Your task to perform on an android device: change text size in settings app Image 0: 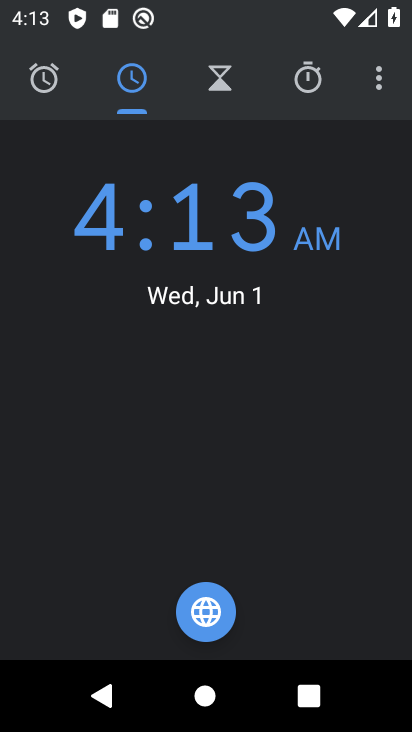
Step 0: press home button
Your task to perform on an android device: change text size in settings app Image 1: 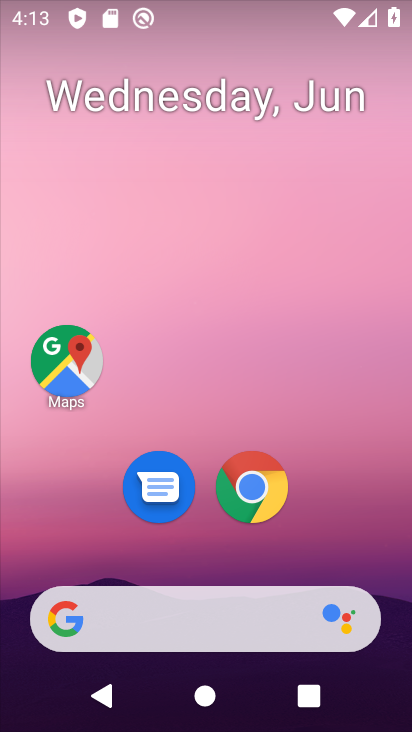
Step 1: drag from (346, 529) to (270, 166)
Your task to perform on an android device: change text size in settings app Image 2: 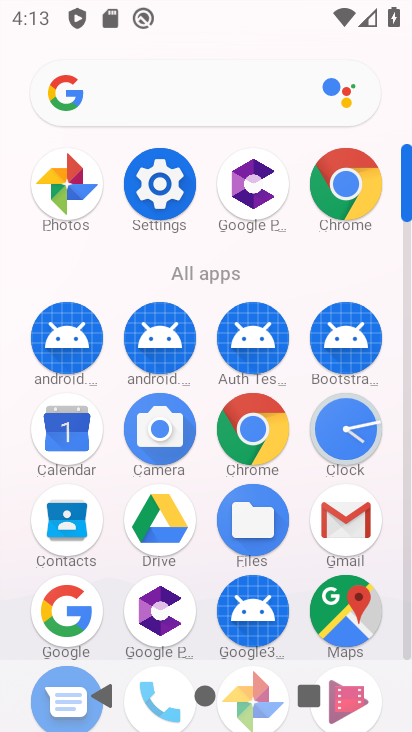
Step 2: click (158, 160)
Your task to perform on an android device: change text size in settings app Image 3: 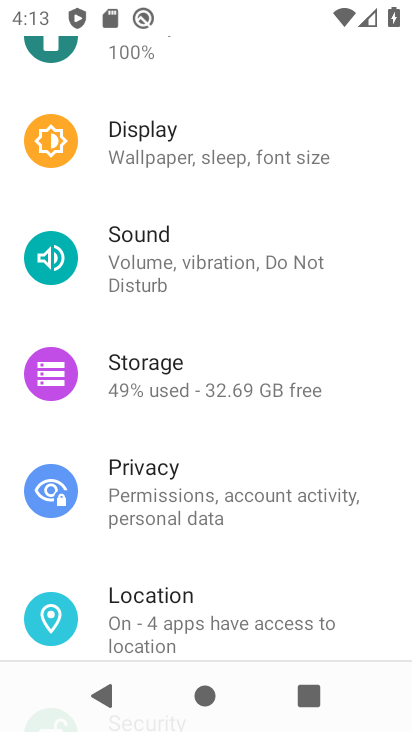
Step 3: click (204, 162)
Your task to perform on an android device: change text size in settings app Image 4: 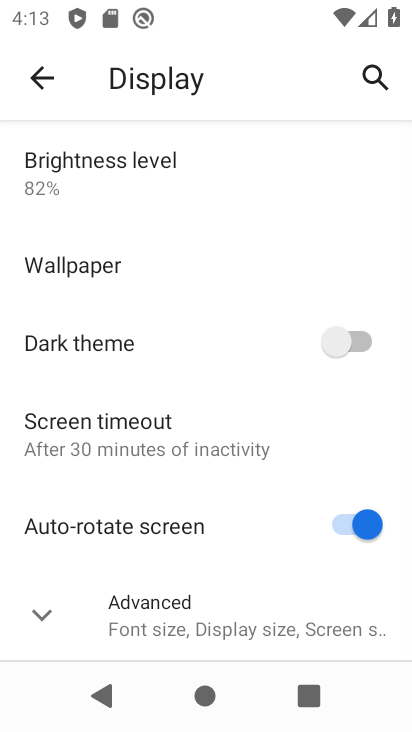
Step 4: drag from (215, 541) to (210, 245)
Your task to perform on an android device: change text size in settings app Image 5: 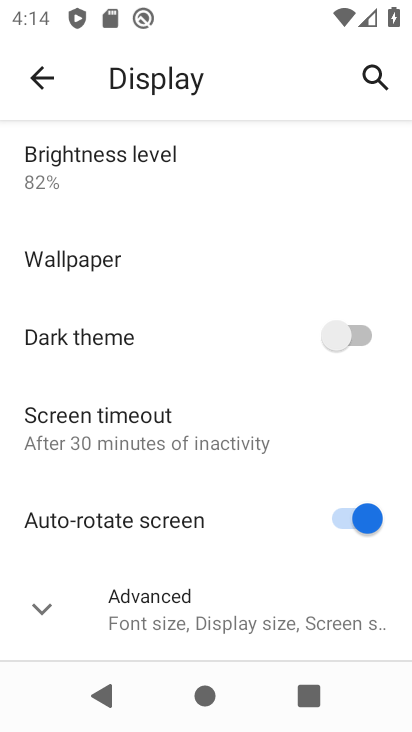
Step 5: click (137, 605)
Your task to perform on an android device: change text size in settings app Image 6: 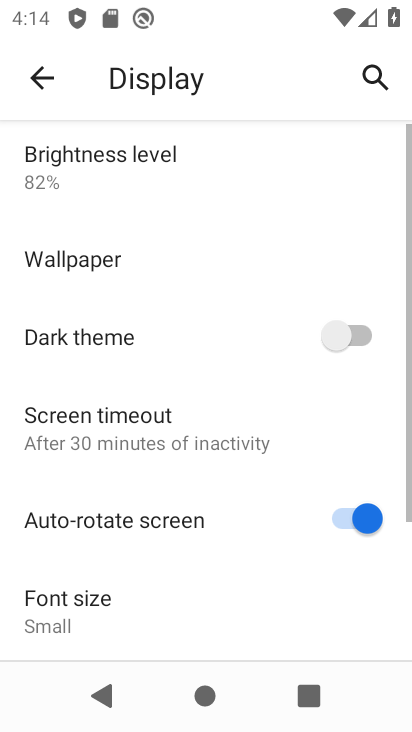
Step 6: click (76, 615)
Your task to perform on an android device: change text size in settings app Image 7: 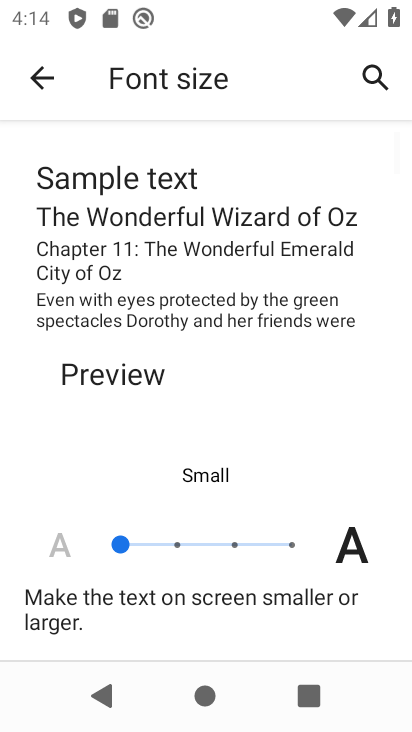
Step 7: click (148, 551)
Your task to perform on an android device: change text size in settings app Image 8: 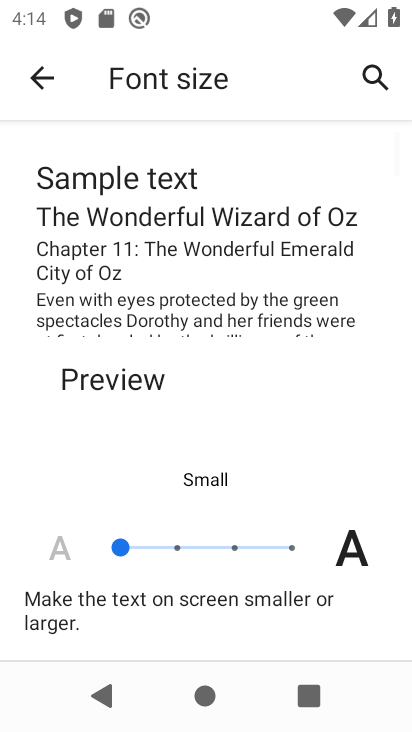
Step 8: click (149, 544)
Your task to perform on an android device: change text size in settings app Image 9: 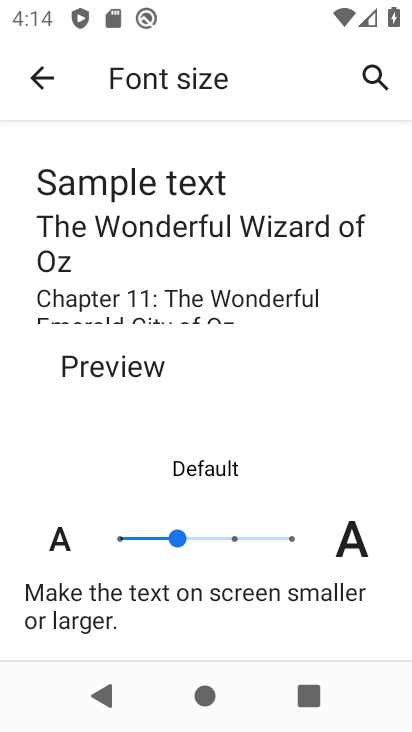
Step 9: task complete